Your task to perform on an android device: Go to Amazon Image 0: 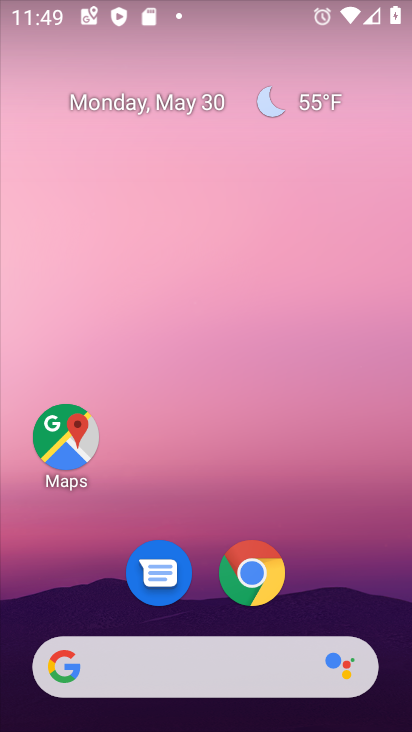
Step 0: click (251, 590)
Your task to perform on an android device: Go to Amazon Image 1: 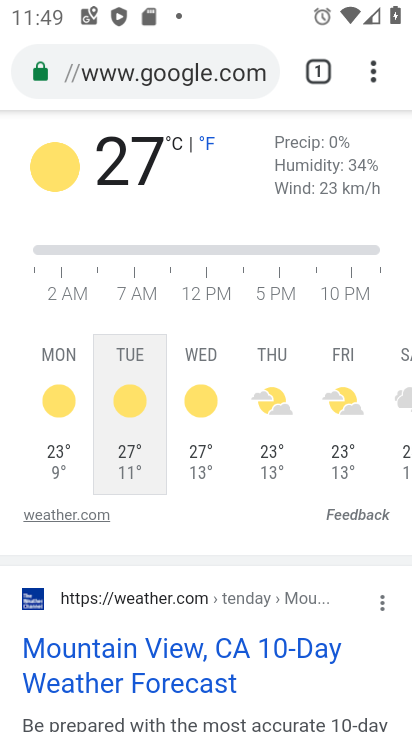
Step 1: click (314, 73)
Your task to perform on an android device: Go to Amazon Image 2: 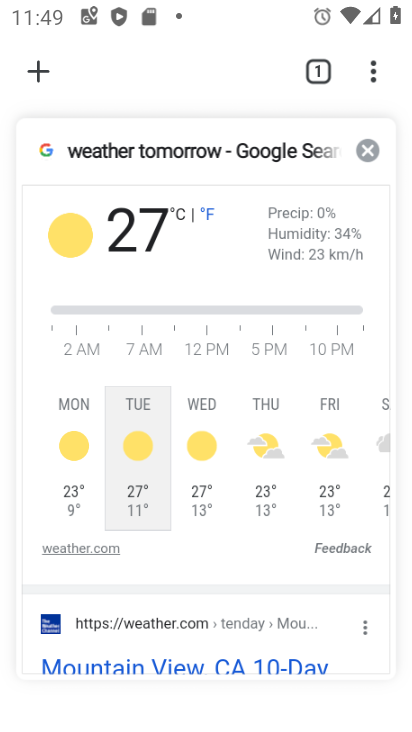
Step 2: click (361, 144)
Your task to perform on an android device: Go to Amazon Image 3: 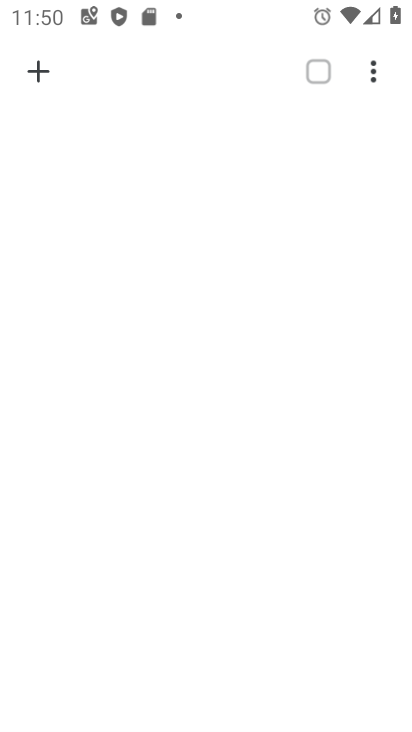
Step 3: click (45, 74)
Your task to perform on an android device: Go to Amazon Image 4: 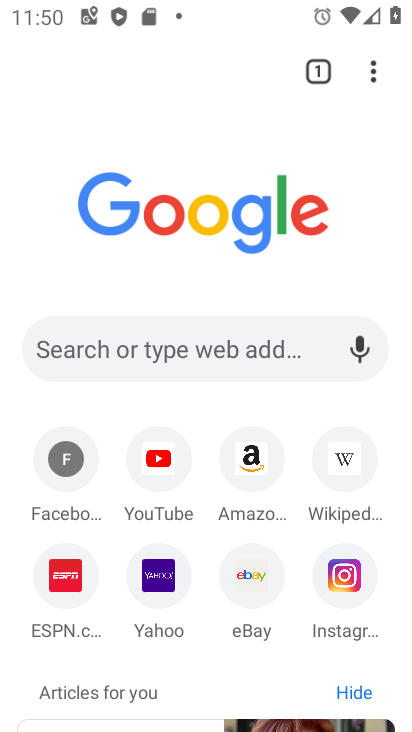
Step 4: click (259, 491)
Your task to perform on an android device: Go to Amazon Image 5: 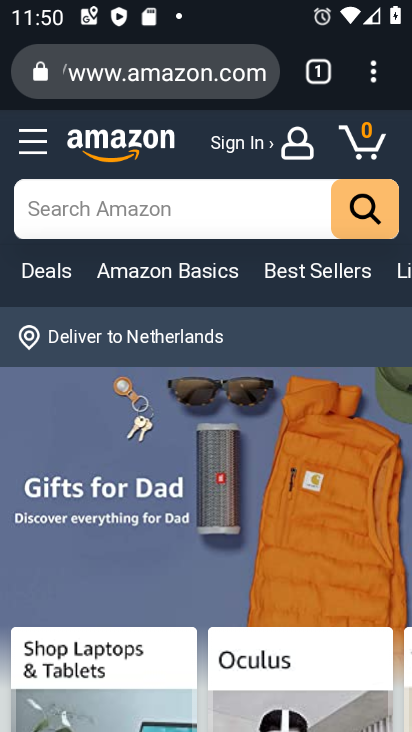
Step 5: task complete